Your task to perform on an android device: Go to Google maps Image 0: 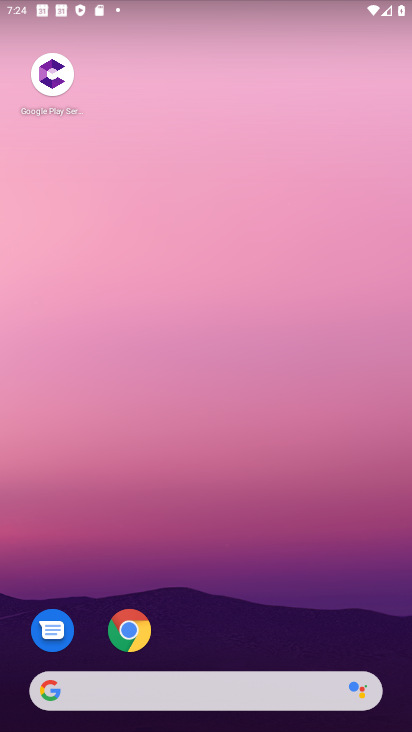
Step 0: drag from (237, 663) to (192, 167)
Your task to perform on an android device: Go to Google maps Image 1: 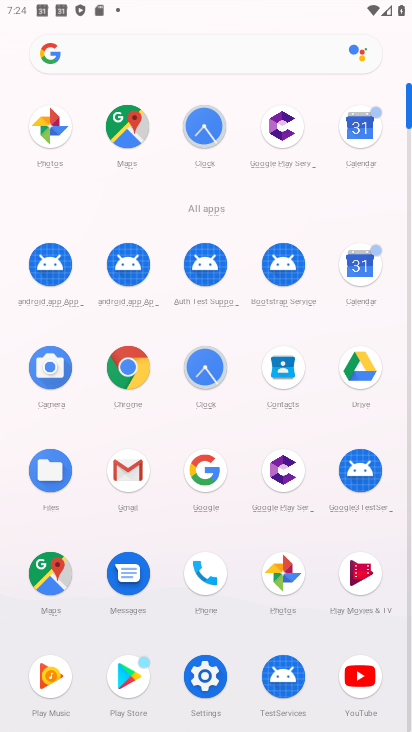
Step 1: click (35, 570)
Your task to perform on an android device: Go to Google maps Image 2: 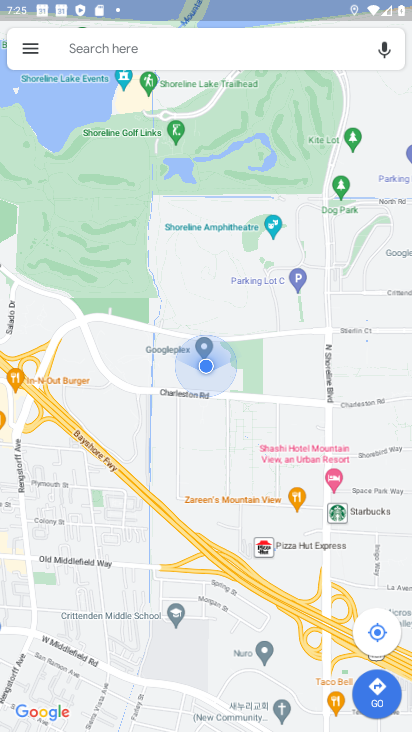
Step 2: task complete